Your task to perform on an android device: Is it going to rain tomorrow? Image 0: 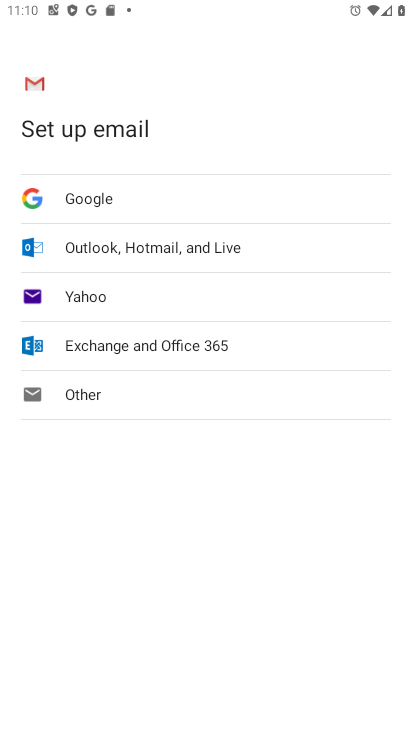
Step 0: press home button
Your task to perform on an android device: Is it going to rain tomorrow? Image 1: 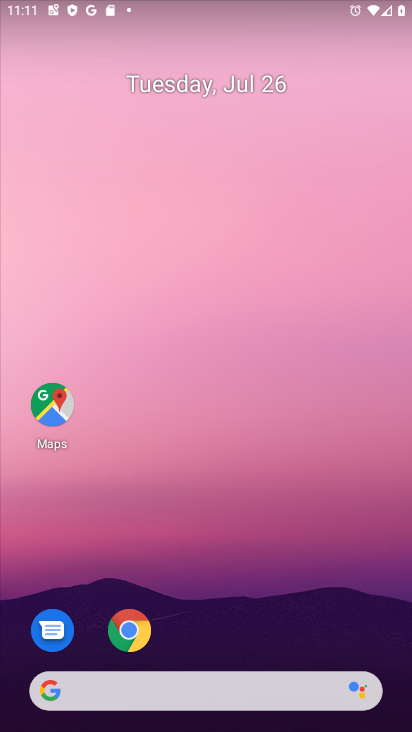
Step 1: click (167, 707)
Your task to perform on an android device: Is it going to rain tomorrow? Image 2: 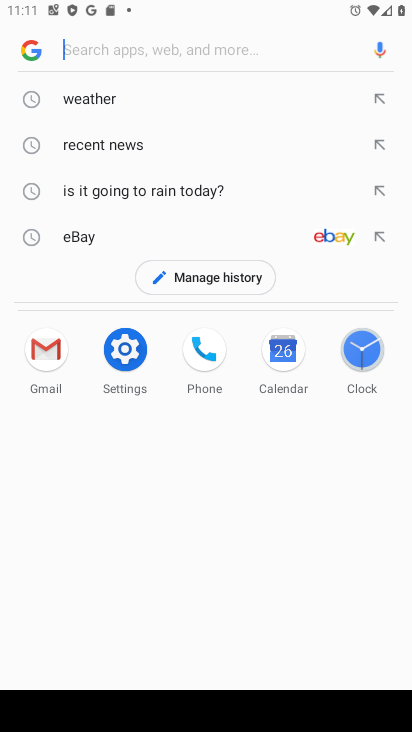
Step 2: type "Is it going to rain tomorrow?"
Your task to perform on an android device: Is it going to rain tomorrow? Image 3: 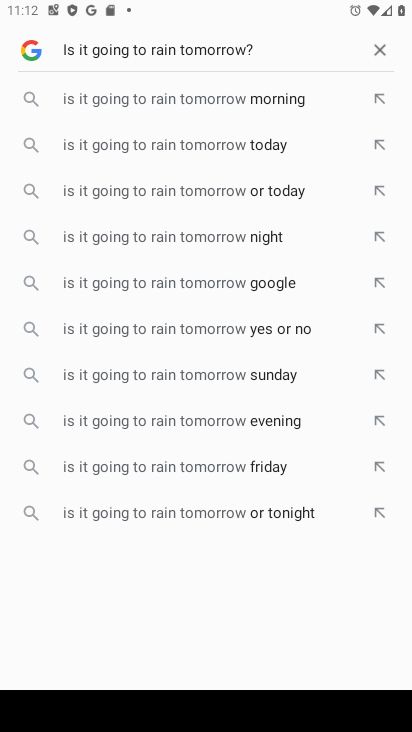
Step 3: press enter
Your task to perform on an android device: Is it going to rain tomorrow? Image 4: 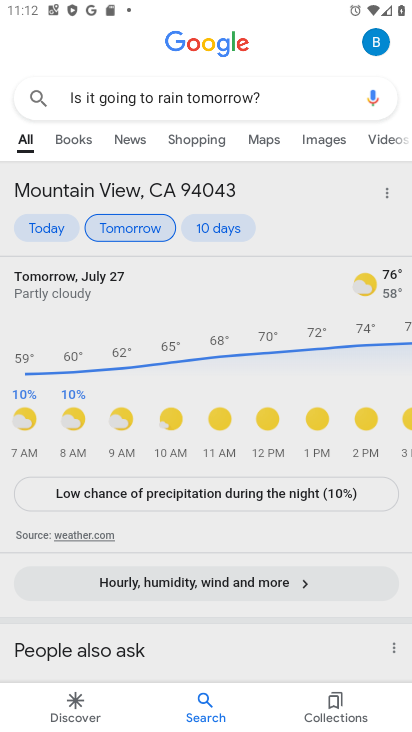
Step 4: task complete